Your task to perform on an android device: How do I get to the nearest Subway? Image 0: 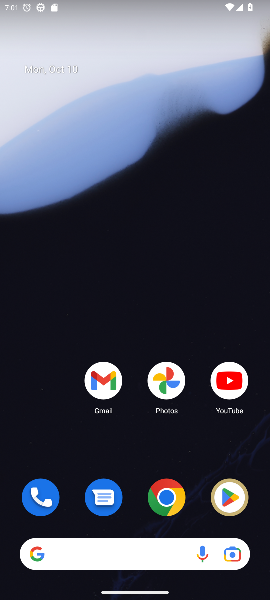
Step 0: drag from (123, 474) to (135, 194)
Your task to perform on an android device: How do I get to the nearest Subway? Image 1: 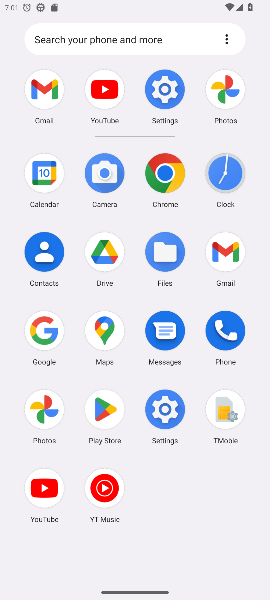
Step 1: click (45, 323)
Your task to perform on an android device: How do I get to the nearest Subway? Image 2: 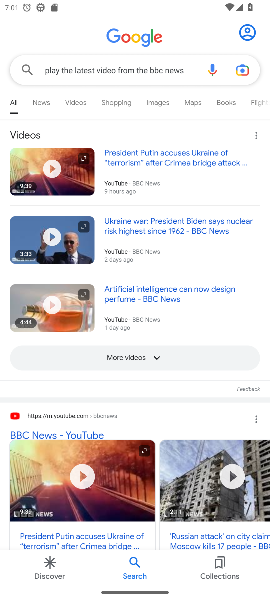
Step 2: click (156, 64)
Your task to perform on an android device: How do I get to the nearest Subway? Image 3: 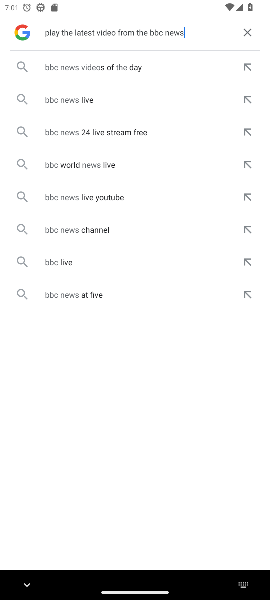
Step 3: click (240, 31)
Your task to perform on an android device: How do I get to the nearest Subway? Image 4: 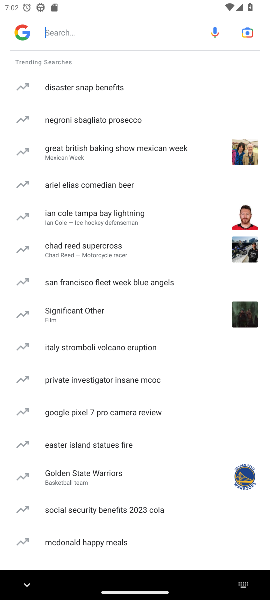
Step 4: click (92, 26)
Your task to perform on an android device: How do I get to the nearest Subway? Image 5: 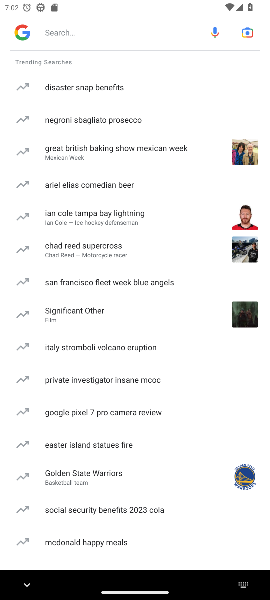
Step 5: type "How do I get to the nearest Subway? "
Your task to perform on an android device: How do I get to the nearest Subway? Image 6: 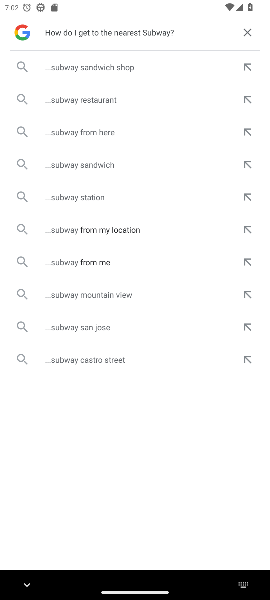
Step 6: click (105, 62)
Your task to perform on an android device: How do I get to the nearest Subway? Image 7: 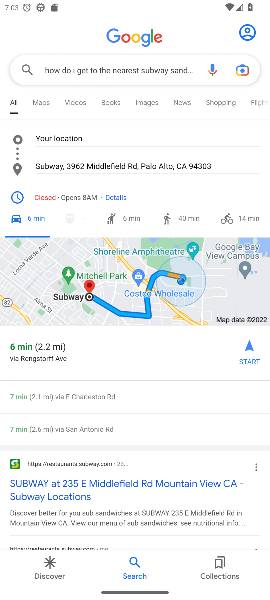
Step 7: task complete